Your task to perform on an android device: Open my contact list Image 0: 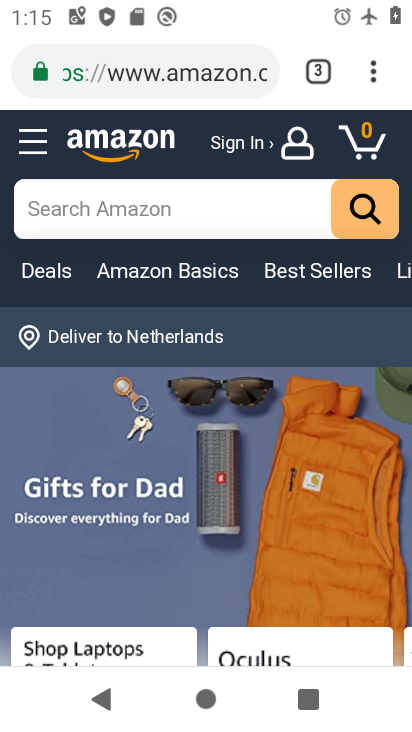
Step 0: press home button
Your task to perform on an android device: Open my contact list Image 1: 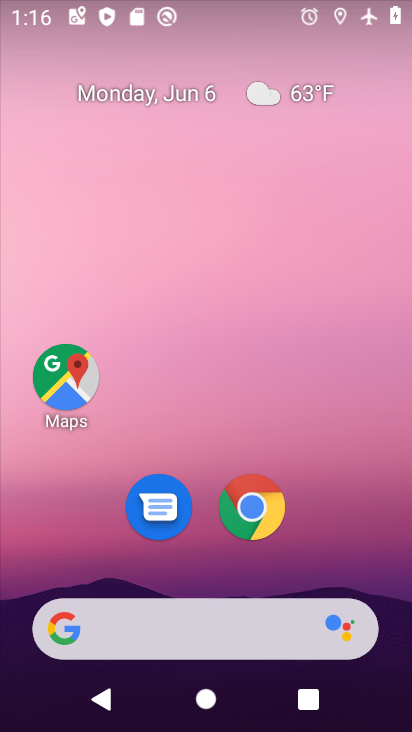
Step 1: drag from (311, 551) to (336, 7)
Your task to perform on an android device: Open my contact list Image 2: 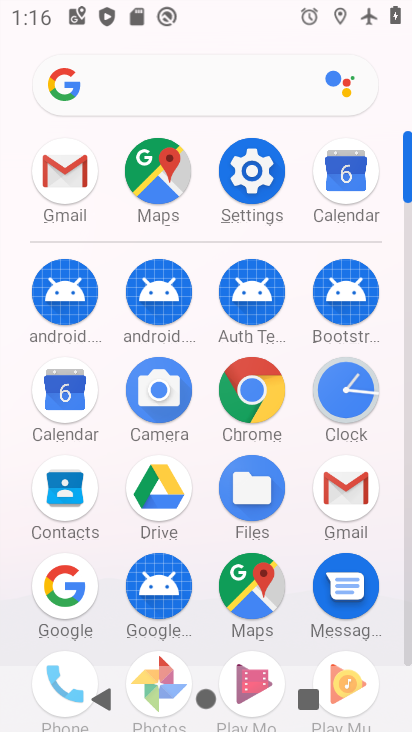
Step 2: click (55, 483)
Your task to perform on an android device: Open my contact list Image 3: 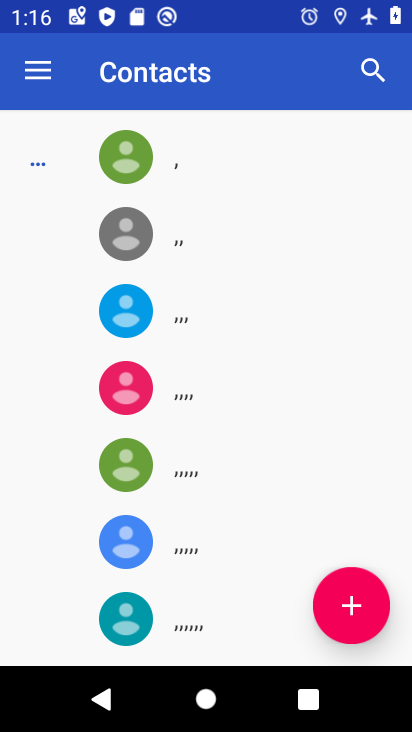
Step 3: task complete